Your task to perform on an android device: turn off location history Image 0: 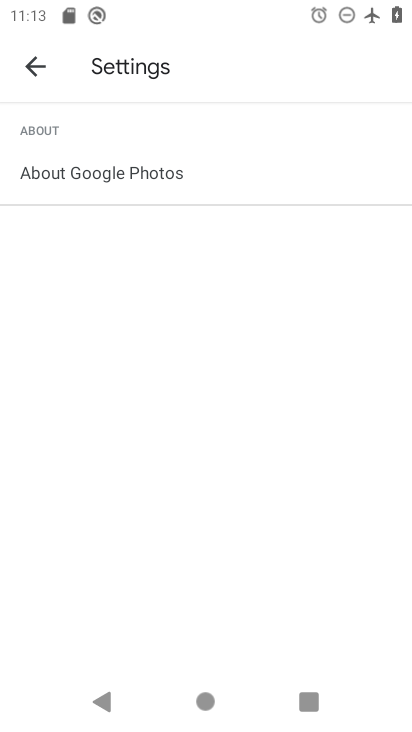
Step 0: press home button
Your task to perform on an android device: turn off location history Image 1: 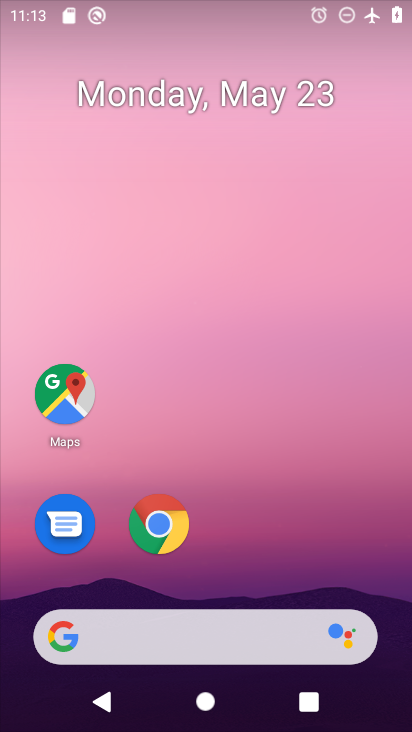
Step 1: drag from (217, 577) to (249, 131)
Your task to perform on an android device: turn off location history Image 2: 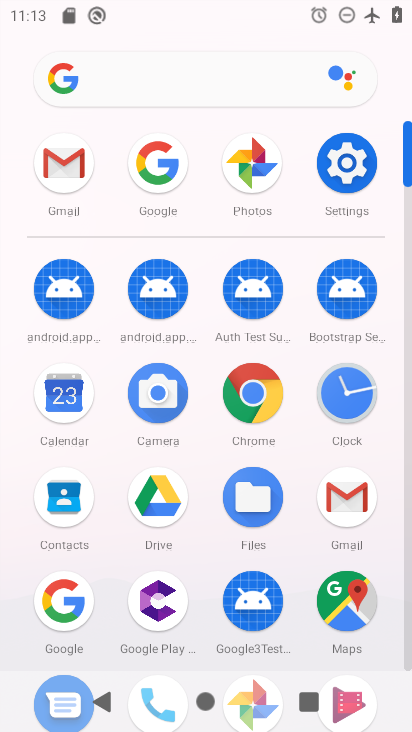
Step 2: click (368, 142)
Your task to perform on an android device: turn off location history Image 3: 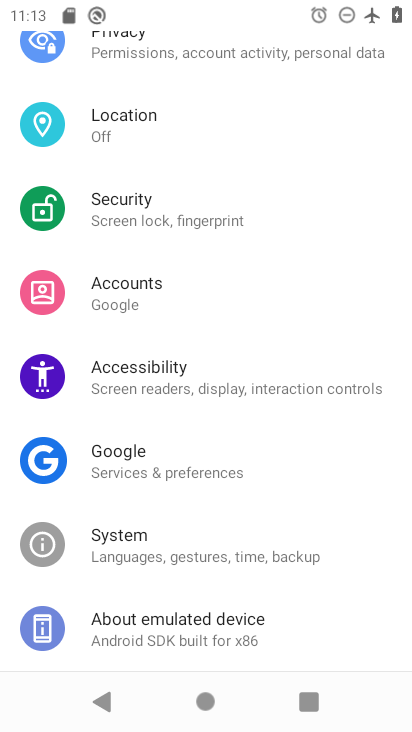
Step 3: click (124, 128)
Your task to perform on an android device: turn off location history Image 4: 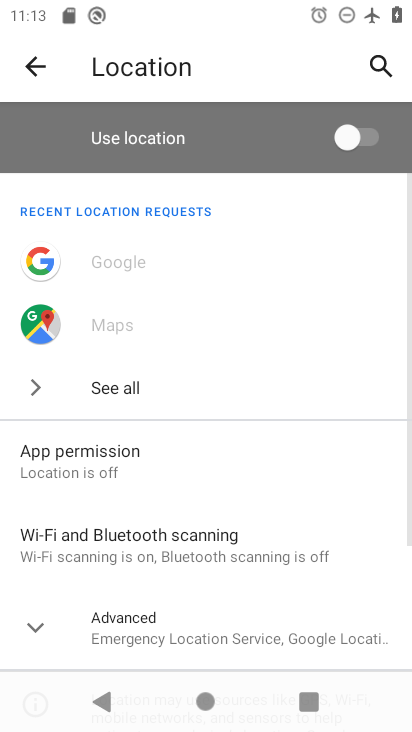
Step 4: drag from (186, 545) to (190, 330)
Your task to perform on an android device: turn off location history Image 5: 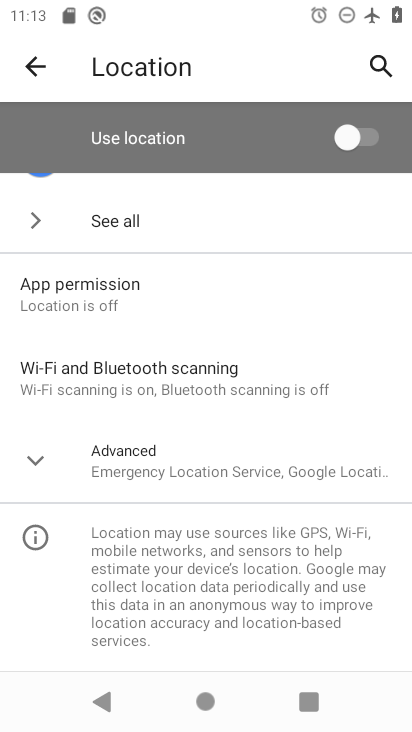
Step 5: click (174, 449)
Your task to perform on an android device: turn off location history Image 6: 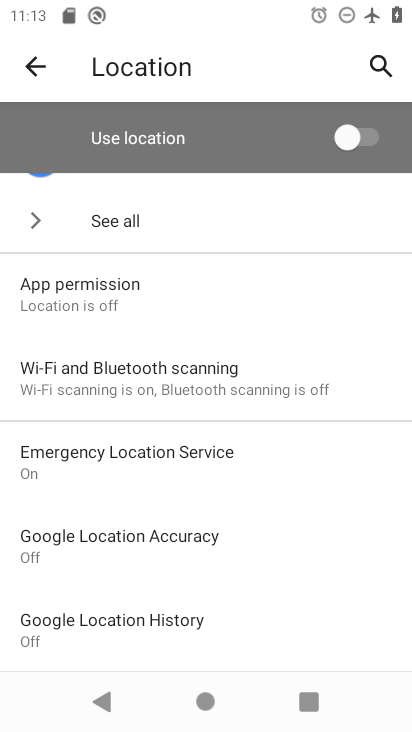
Step 6: drag from (206, 621) to (213, 422)
Your task to perform on an android device: turn off location history Image 7: 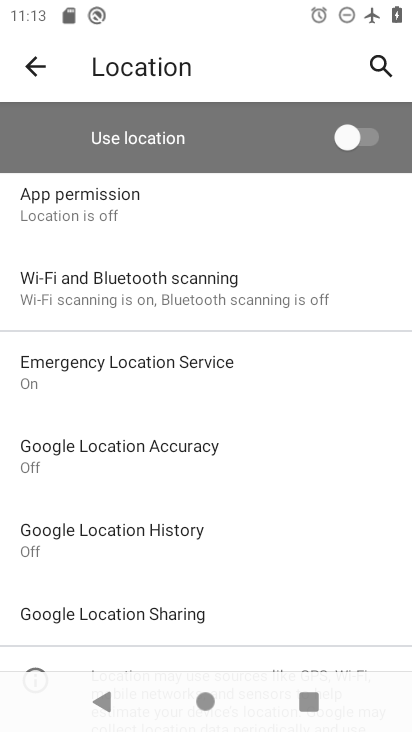
Step 7: click (183, 525)
Your task to perform on an android device: turn off location history Image 8: 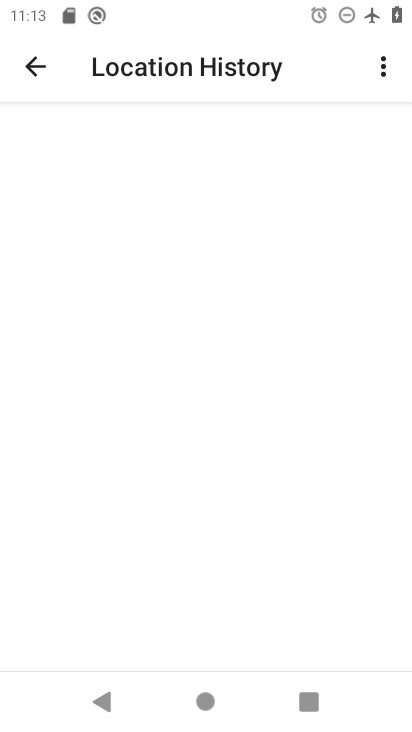
Step 8: task complete